Your task to perform on an android device: open app "Venmo" (install if not already installed) Image 0: 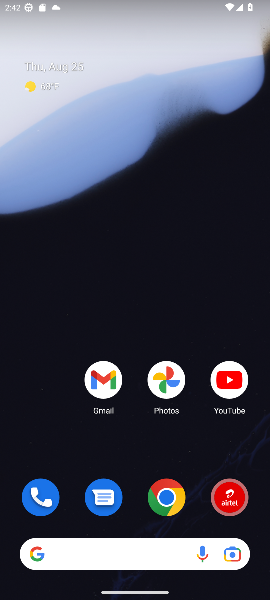
Step 0: click (164, 163)
Your task to perform on an android device: open app "Venmo" (install if not already installed) Image 1: 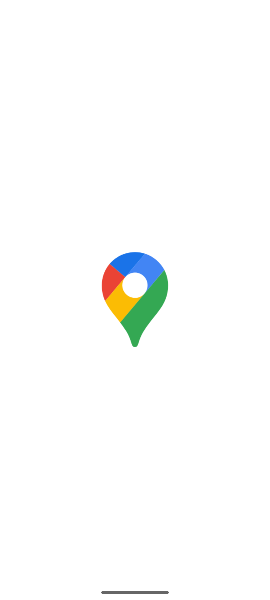
Step 1: press home button
Your task to perform on an android device: open app "Venmo" (install if not already installed) Image 2: 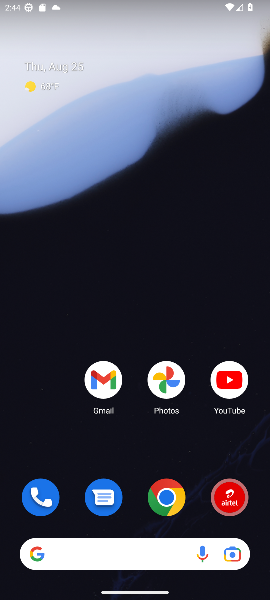
Step 2: drag from (124, 483) to (157, 111)
Your task to perform on an android device: open app "Venmo" (install if not already installed) Image 3: 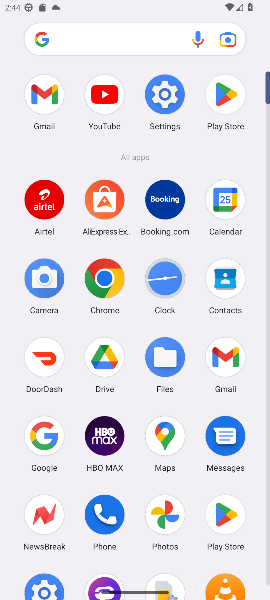
Step 3: click (217, 84)
Your task to perform on an android device: open app "Venmo" (install if not already installed) Image 4: 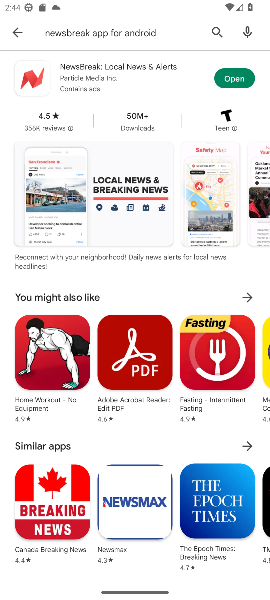
Step 4: click (12, 22)
Your task to perform on an android device: open app "Venmo" (install if not already installed) Image 5: 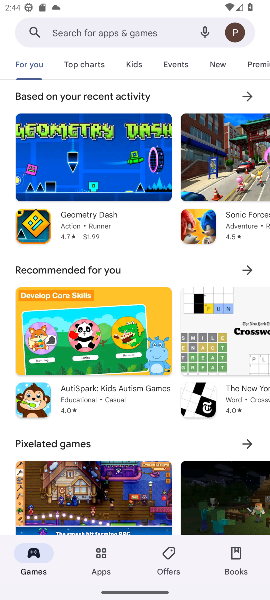
Step 5: click (69, 24)
Your task to perform on an android device: open app "Venmo" (install if not already installed) Image 6: 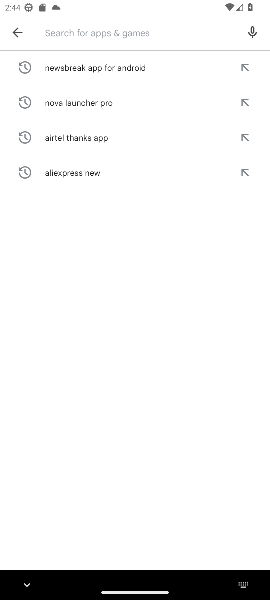
Step 6: type "Venmo "
Your task to perform on an android device: open app "Venmo" (install if not already installed) Image 7: 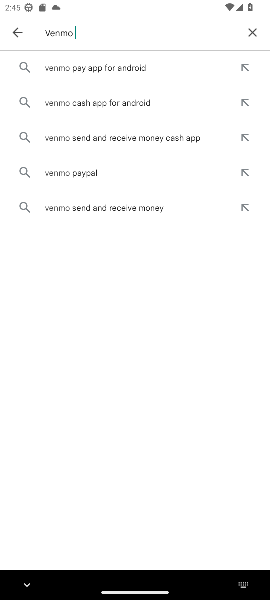
Step 7: click (117, 64)
Your task to perform on an android device: open app "Venmo" (install if not already installed) Image 8: 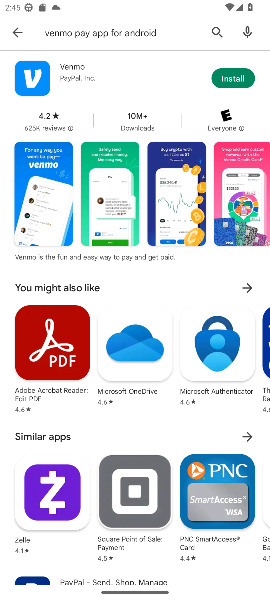
Step 8: click (222, 77)
Your task to perform on an android device: open app "Venmo" (install if not already installed) Image 9: 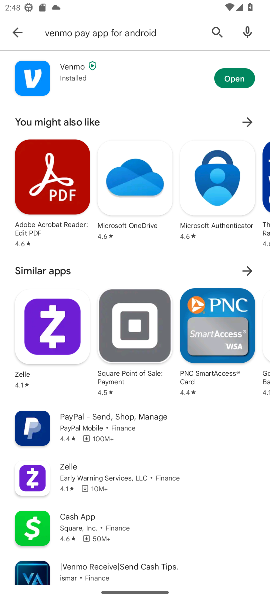
Step 9: task complete